Your task to perform on an android device: Go to privacy settings Image 0: 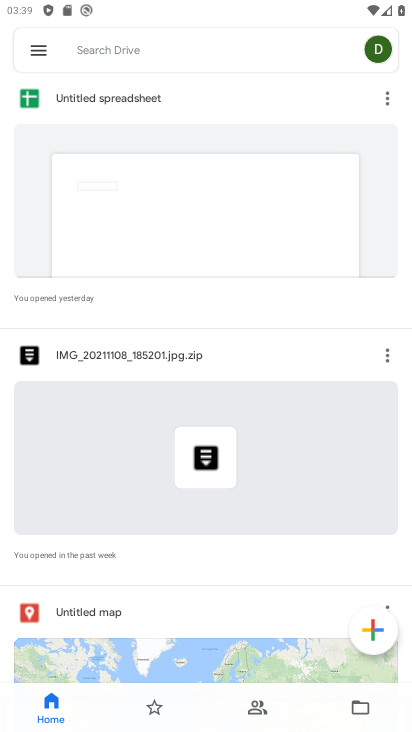
Step 0: press home button
Your task to perform on an android device: Go to privacy settings Image 1: 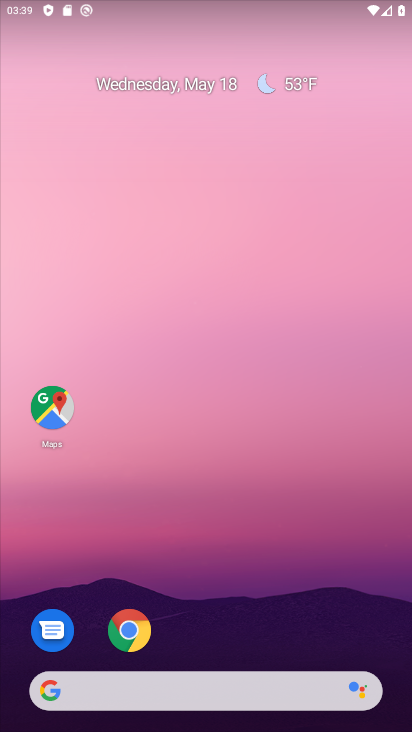
Step 1: drag from (222, 715) to (226, 195)
Your task to perform on an android device: Go to privacy settings Image 2: 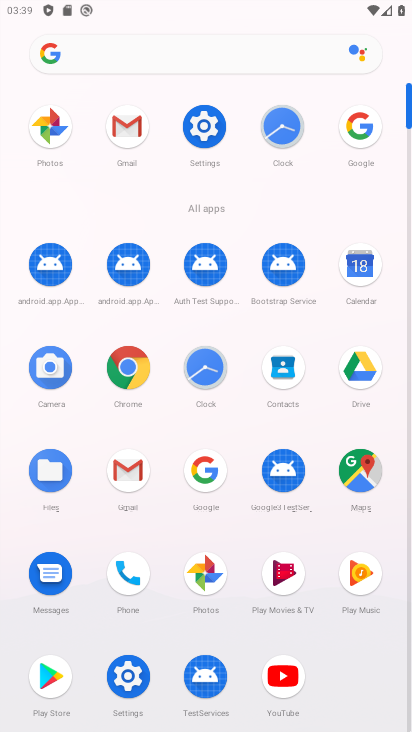
Step 2: click (207, 132)
Your task to perform on an android device: Go to privacy settings Image 3: 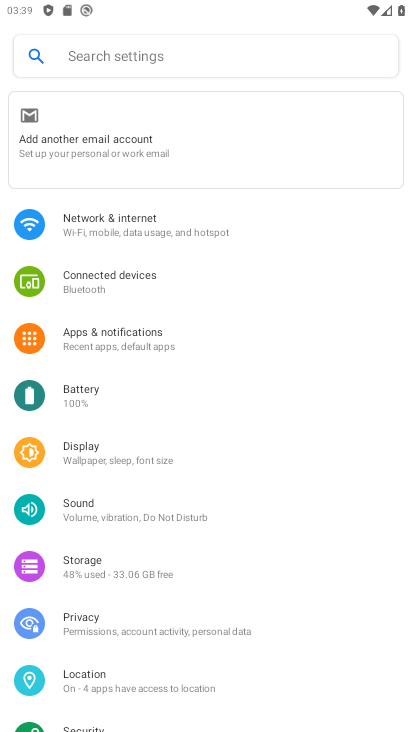
Step 3: click (88, 616)
Your task to perform on an android device: Go to privacy settings Image 4: 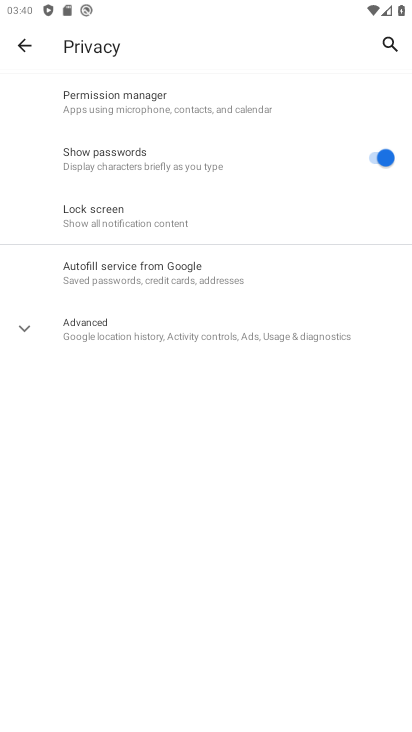
Step 4: task complete